Your task to perform on an android device: toggle sleep mode Image 0: 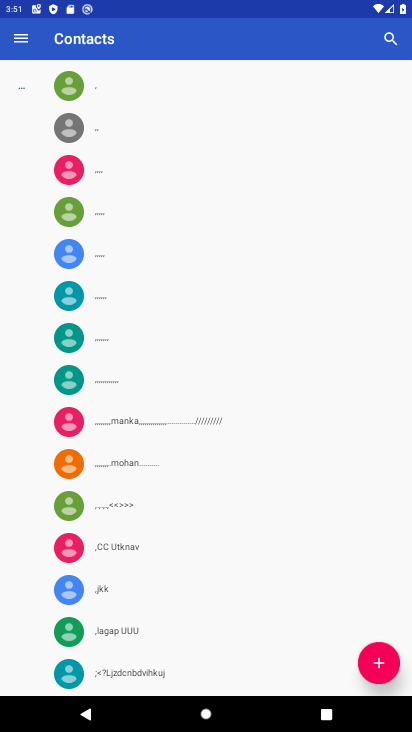
Step 0: press home button
Your task to perform on an android device: toggle sleep mode Image 1: 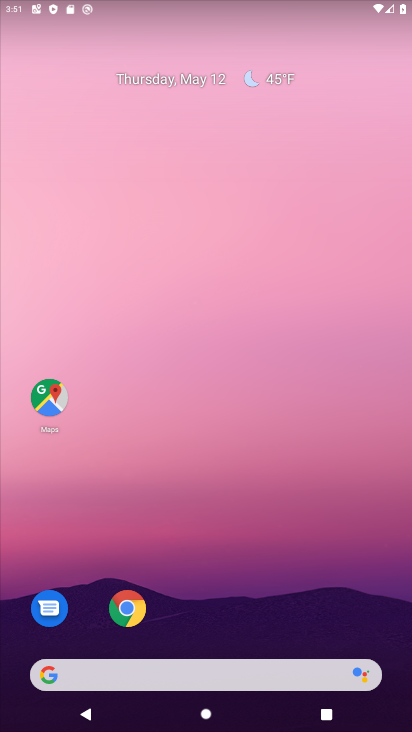
Step 1: drag from (254, 619) to (264, 117)
Your task to perform on an android device: toggle sleep mode Image 2: 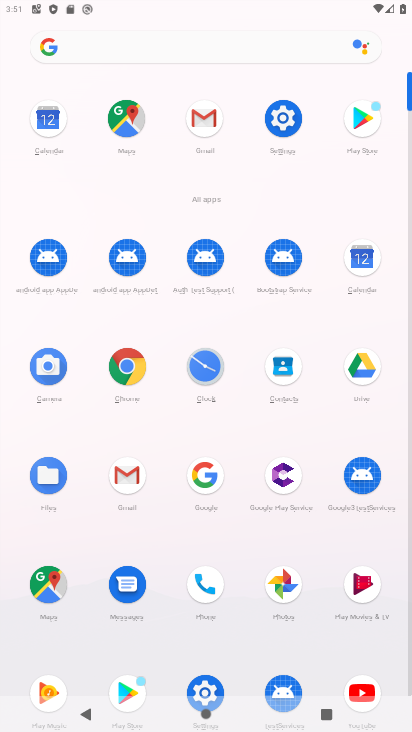
Step 2: click (277, 115)
Your task to perform on an android device: toggle sleep mode Image 3: 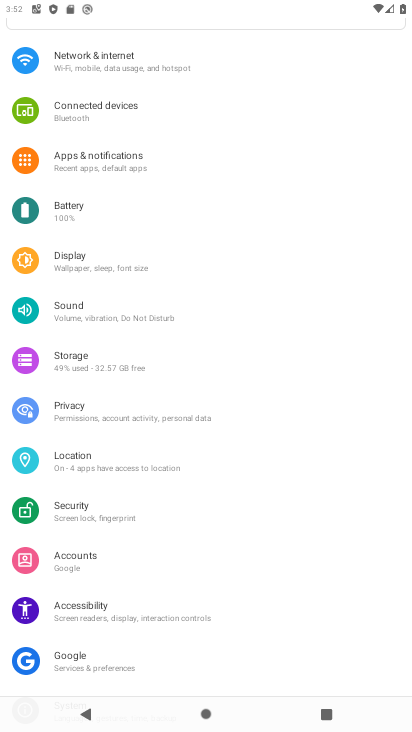
Step 3: task complete